Your task to perform on an android device: check the backup settings in the google photos Image 0: 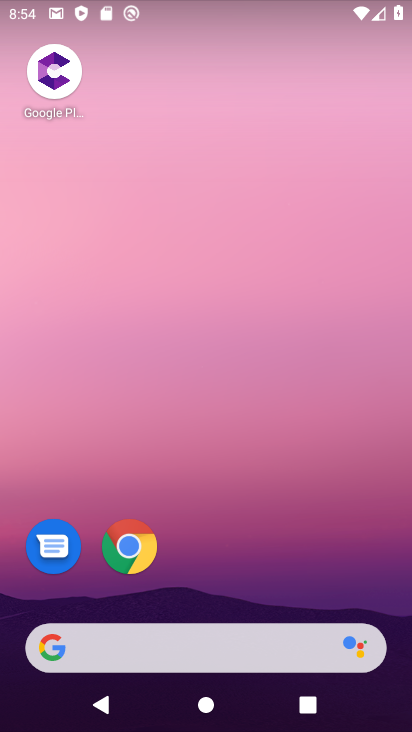
Step 0: drag from (251, 537) to (193, 149)
Your task to perform on an android device: check the backup settings in the google photos Image 1: 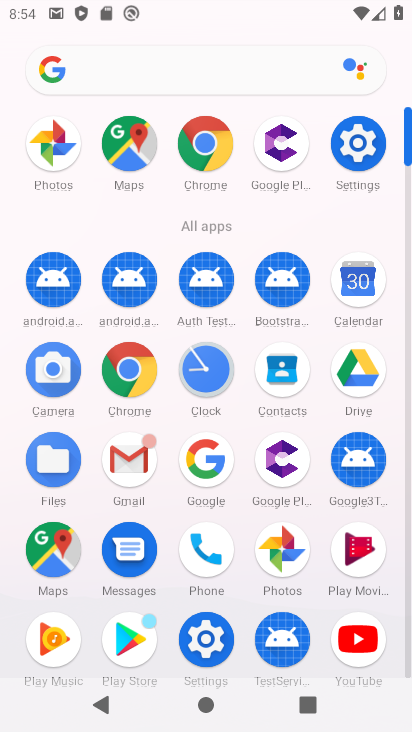
Step 1: click (55, 135)
Your task to perform on an android device: check the backup settings in the google photos Image 2: 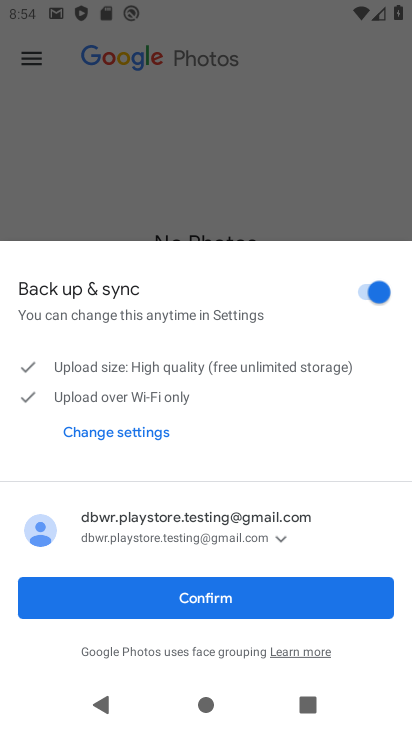
Step 2: click (133, 339)
Your task to perform on an android device: check the backup settings in the google photos Image 3: 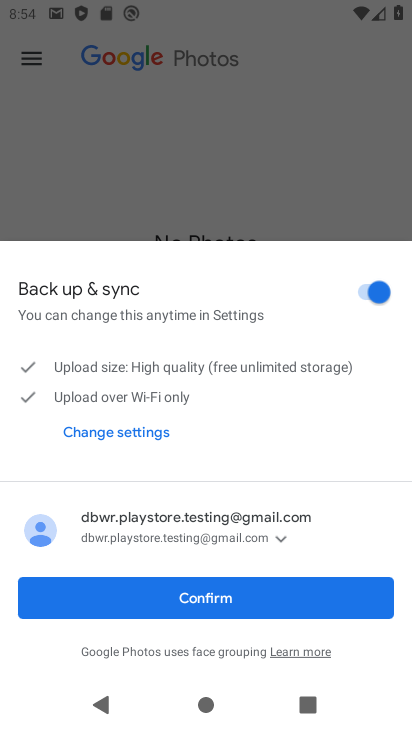
Step 3: click (88, 279)
Your task to perform on an android device: check the backup settings in the google photos Image 4: 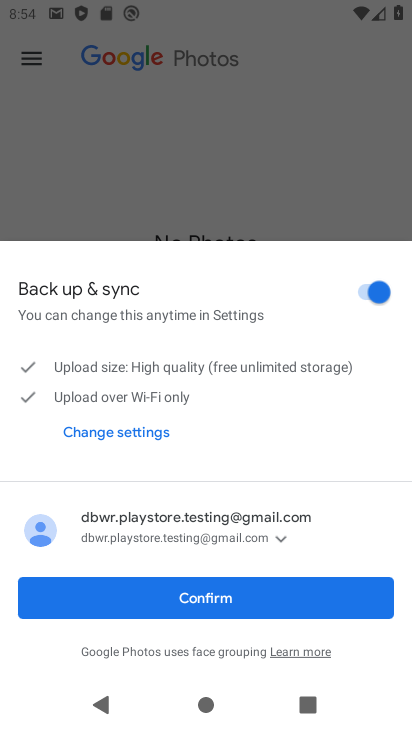
Step 4: click (88, 311)
Your task to perform on an android device: check the backup settings in the google photos Image 5: 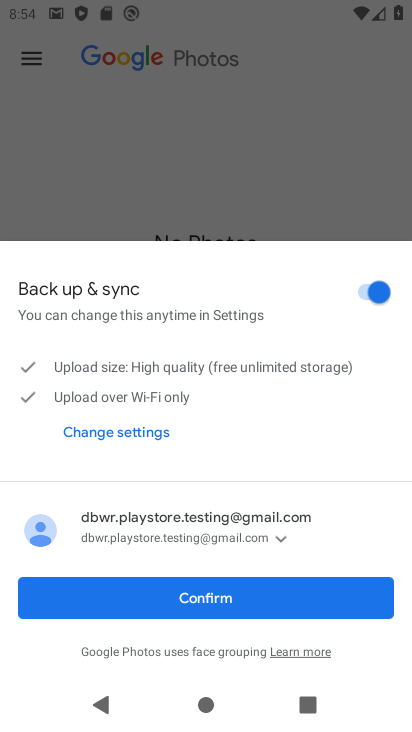
Step 5: click (110, 430)
Your task to perform on an android device: check the backup settings in the google photos Image 6: 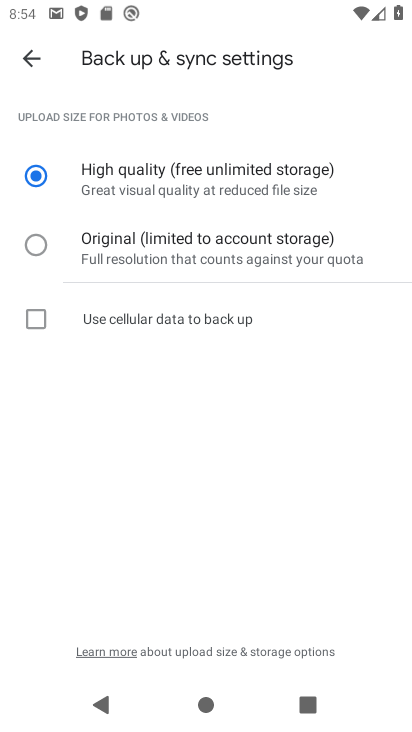
Step 6: task complete